Your task to perform on an android device: Go to Android settings Image 0: 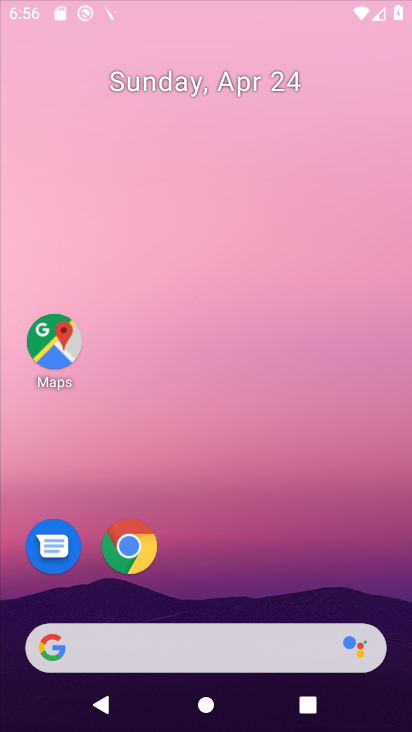
Step 0: click (251, 561)
Your task to perform on an android device: Go to Android settings Image 1: 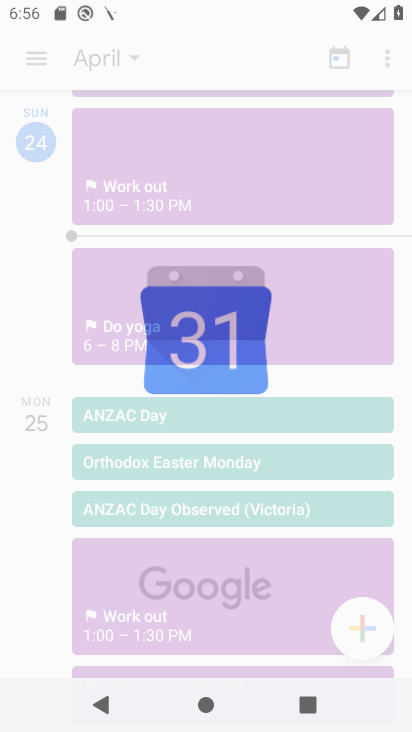
Step 1: drag from (251, 561) to (159, 14)
Your task to perform on an android device: Go to Android settings Image 2: 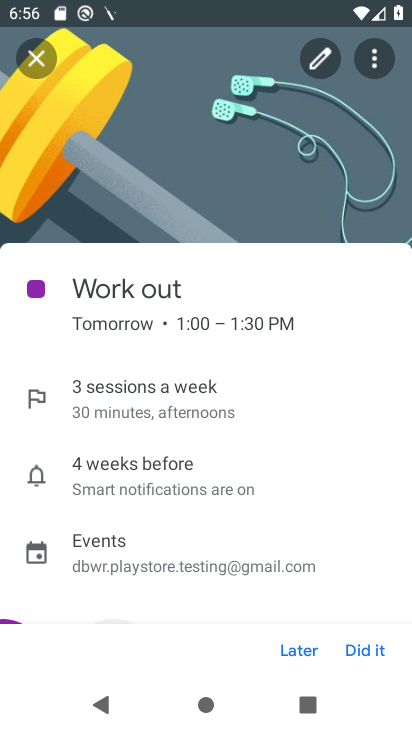
Step 2: press home button
Your task to perform on an android device: Go to Android settings Image 3: 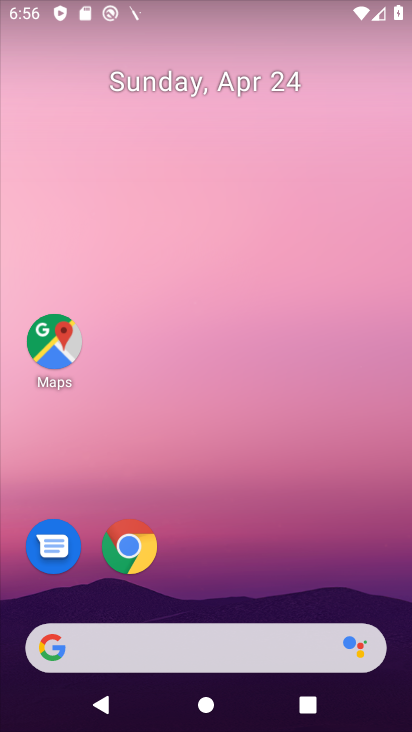
Step 3: drag from (225, 571) to (229, 174)
Your task to perform on an android device: Go to Android settings Image 4: 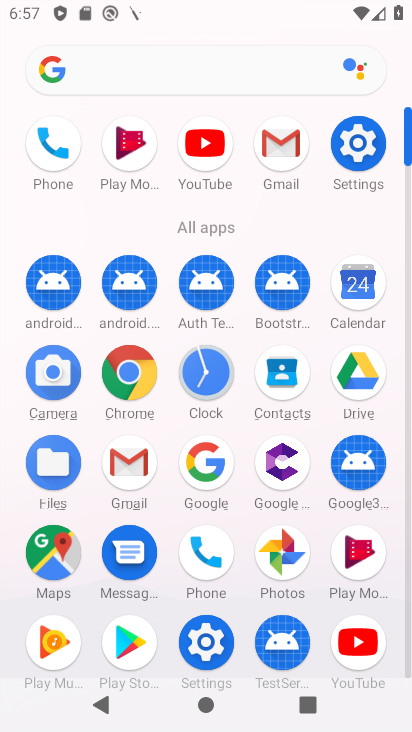
Step 4: click (360, 145)
Your task to perform on an android device: Go to Android settings Image 5: 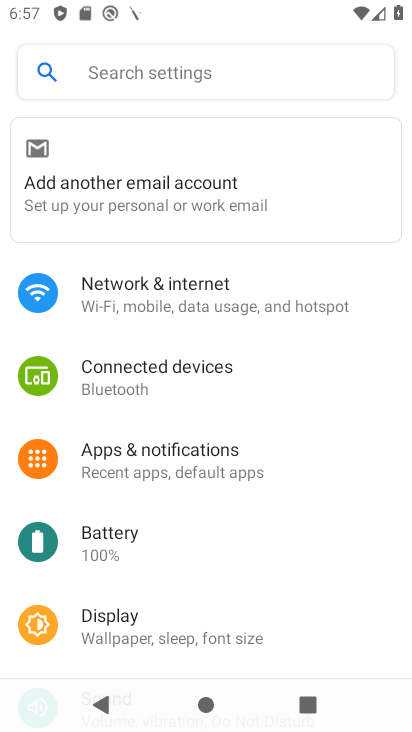
Step 5: task complete